Your task to perform on an android device: Open calendar and show me the fourth week of next month Image 0: 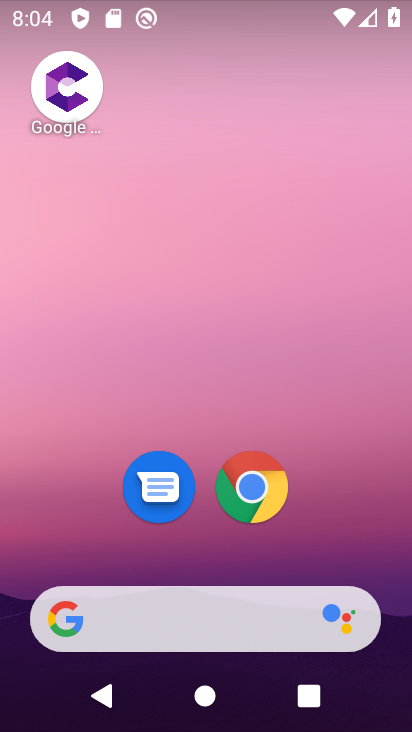
Step 0: drag from (353, 559) to (316, 17)
Your task to perform on an android device: Open calendar and show me the fourth week of next month Image 1: 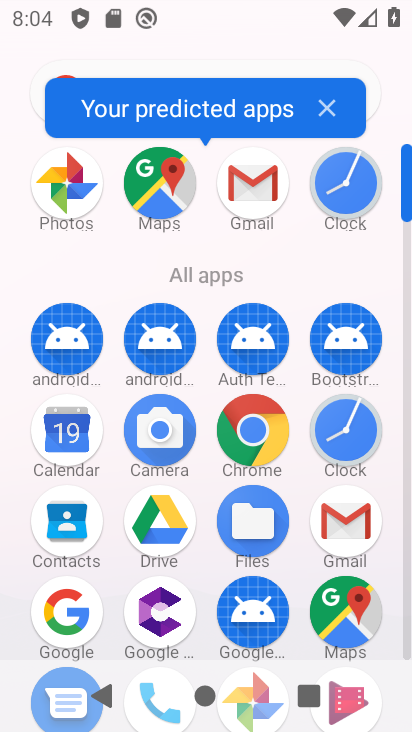
Step 1: click (43, 425)
Your task to perform on an android device: Open calendar and show me the fourth week of next month Image 2: 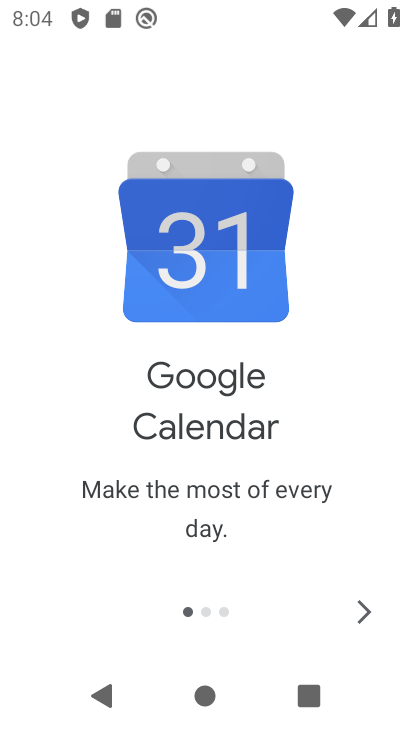
Step 2: click (386, 617)
Your task to perform on an android device: Open calendar and show me the fourth week of next month Image 3: 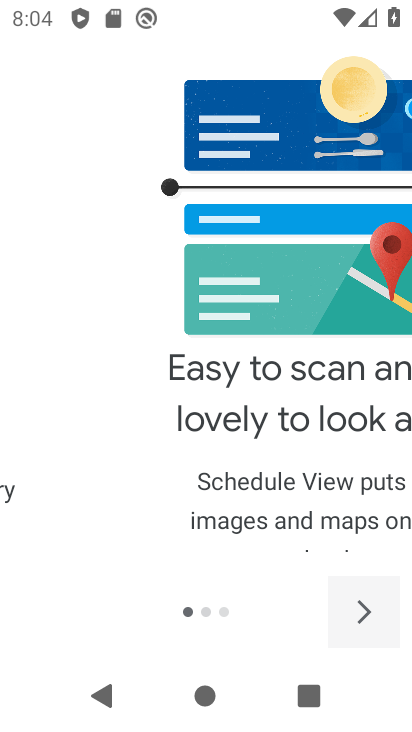
Step 3: click (370, 600)
Your task to perform on an android device: Open calendar and show me the fourth week of next month Image 4: 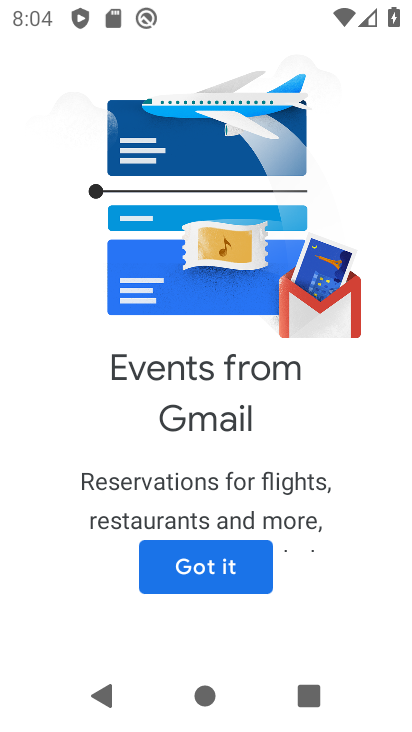
Step 4: click (366, 599)
Your task to perform on an android device: Open calendar and show me the fourth week of next month Image 5: 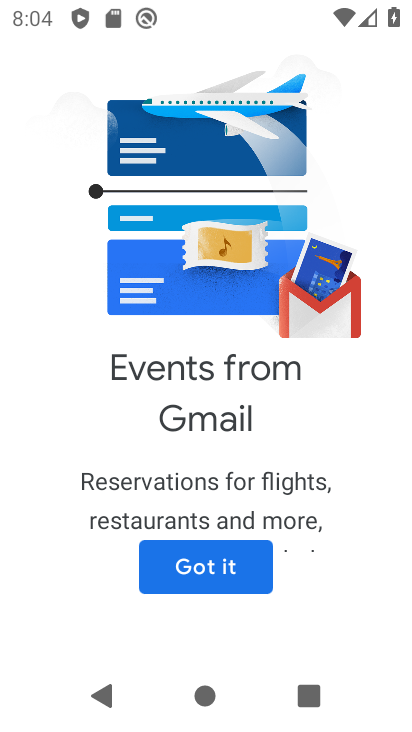
Step 5: click (219, 576)
Your task to perform on an android device: Open calendar and show me the fourth week of next month Image 6: 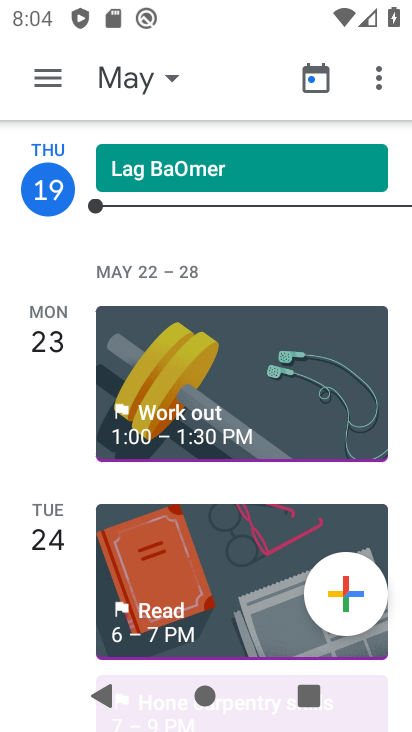
Step 6: click (132, 80)
Your task to perform on an android device: Open calendar and show me the fourth week of next month Image 7: 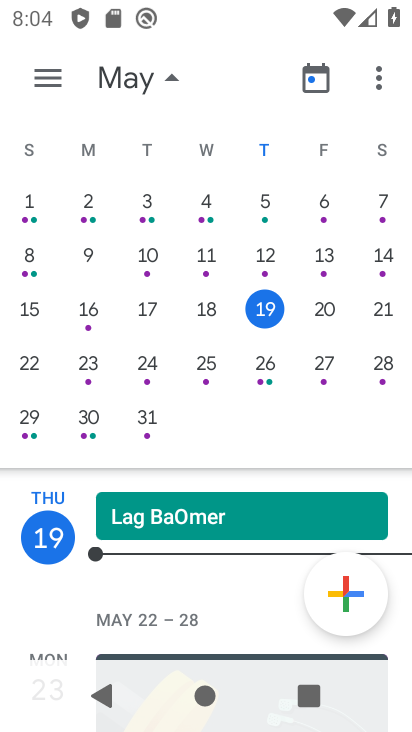
Step 7: drag from (378, 303) to (17, 328)
Your task to perform on an android device: Open calendar and show me the fourth week of next month Image 8: 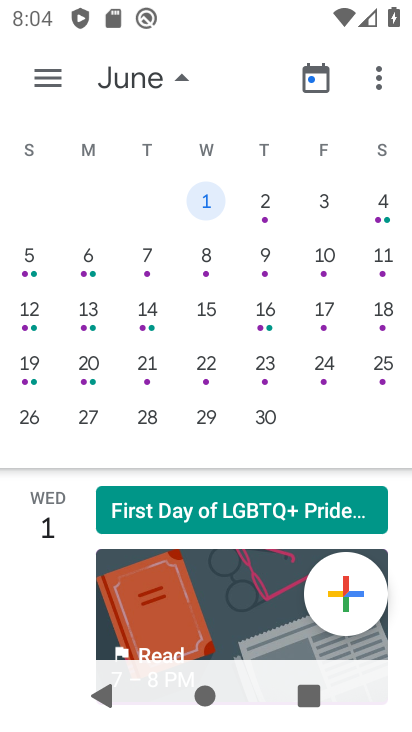
Step 8: click (91, 418)
Your task to perform on an android device: Open calendar and show me the fourth week of next month Image 9: 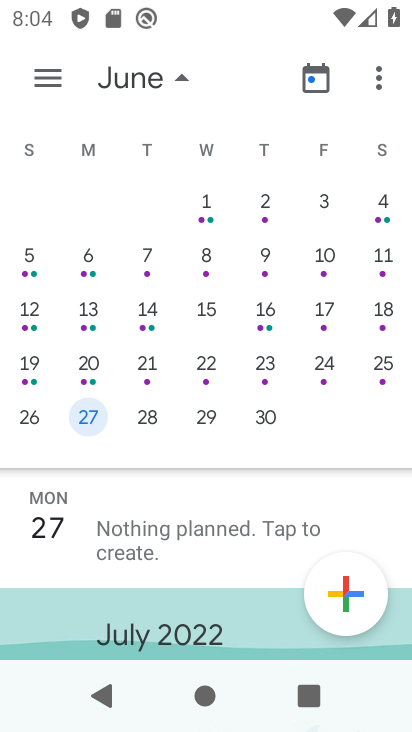
Step 9: click (53, 76)
Your task to perform on an android device: Open calendar and show me the fourth week of next month Image 10: 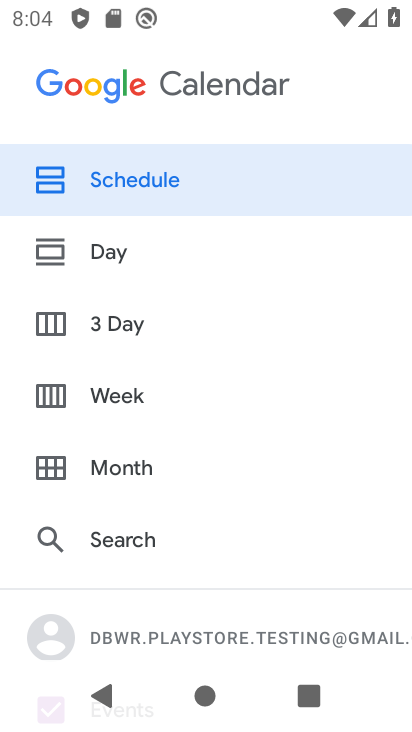
Step 10: click (112, 389)
Your task to perform on an android device: Open calendar and show me the fourth week of next month Image 11: 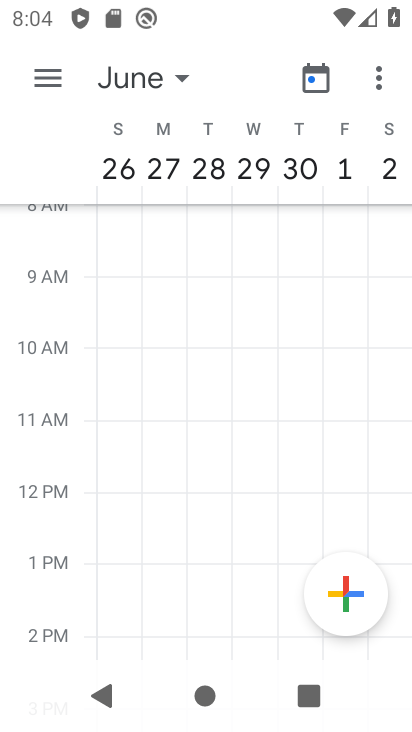
Step 11: task complete